Your task to perform on an android device: Open battery settings Image 0: 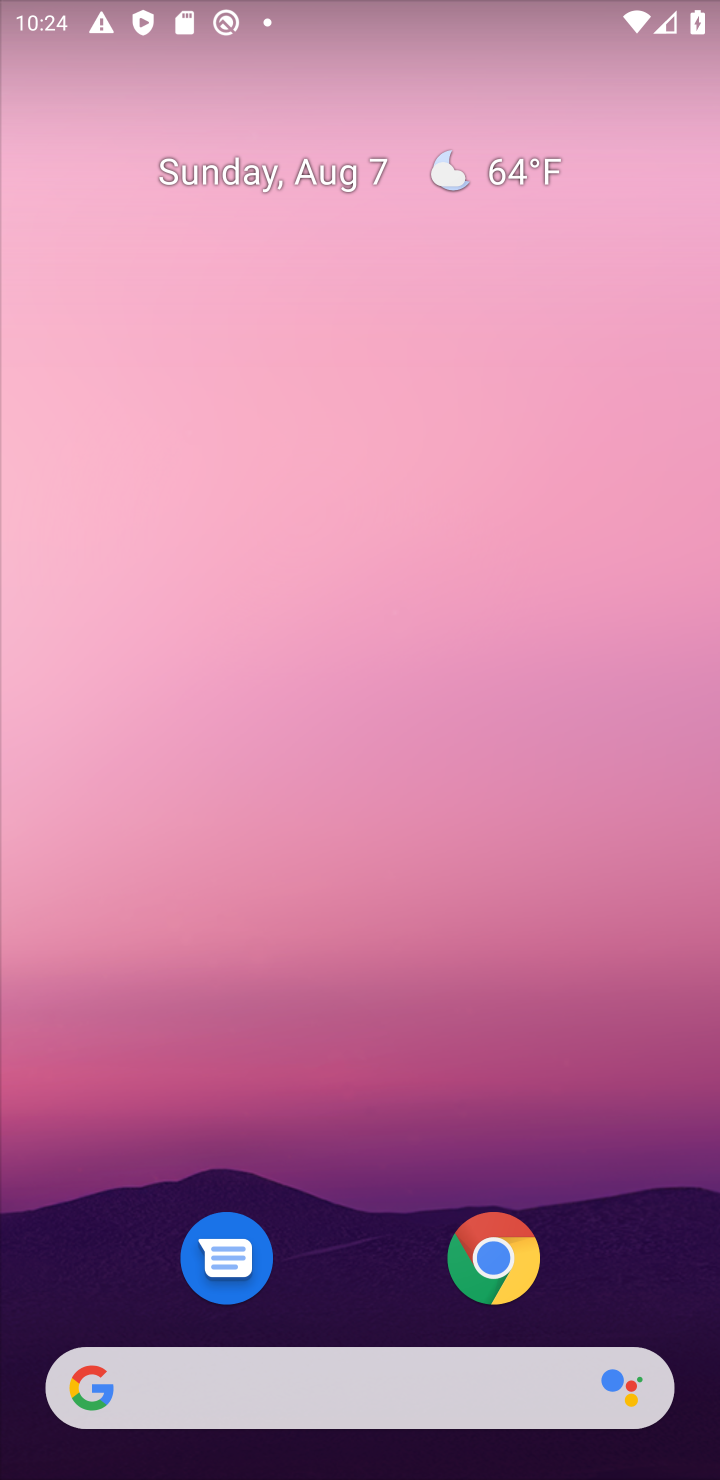
Step 0: press home button
Your task to perform on an android device: Open battery settings Image 1: 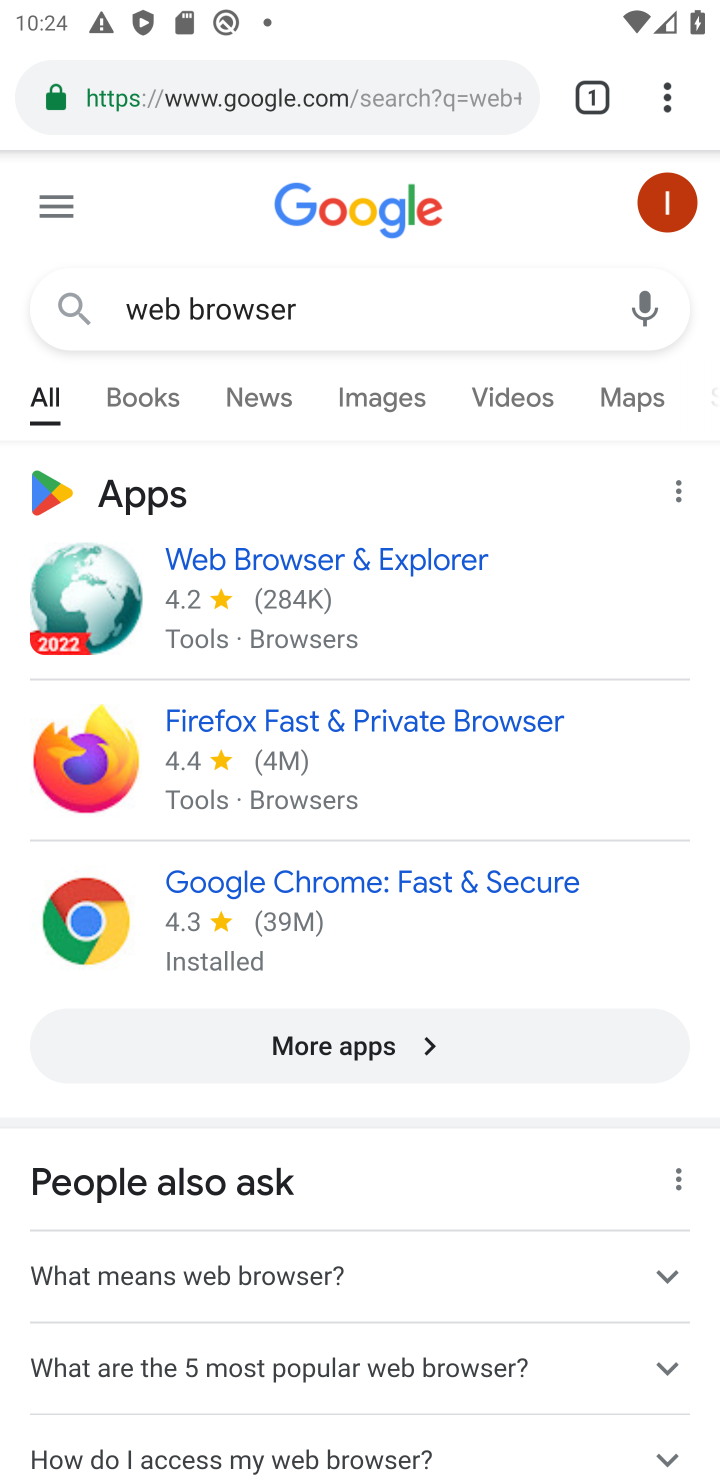
Step 1: press home button
Your task to perform on an android device: Open battery settings Image 2: 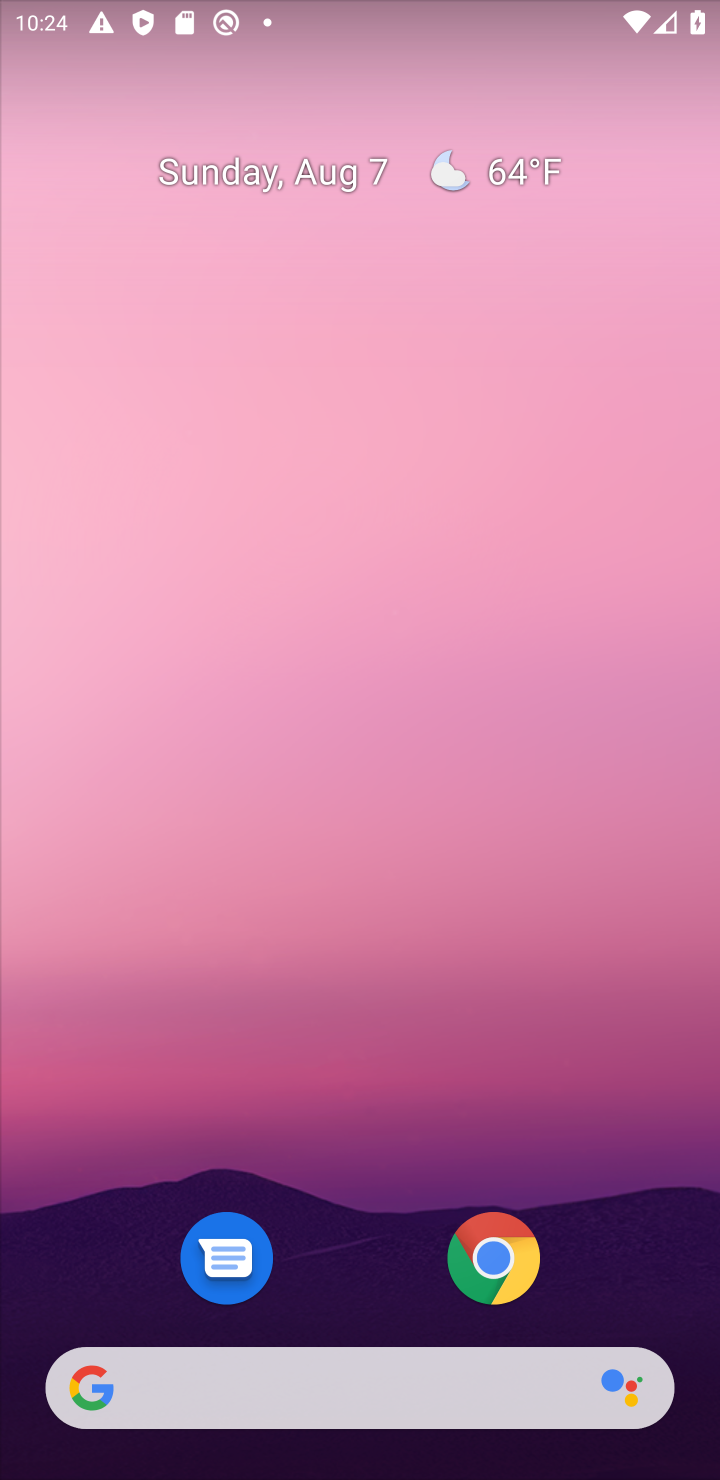
Step 2: press home button
Your task to perform on an android device: Open battery settings Image 3: 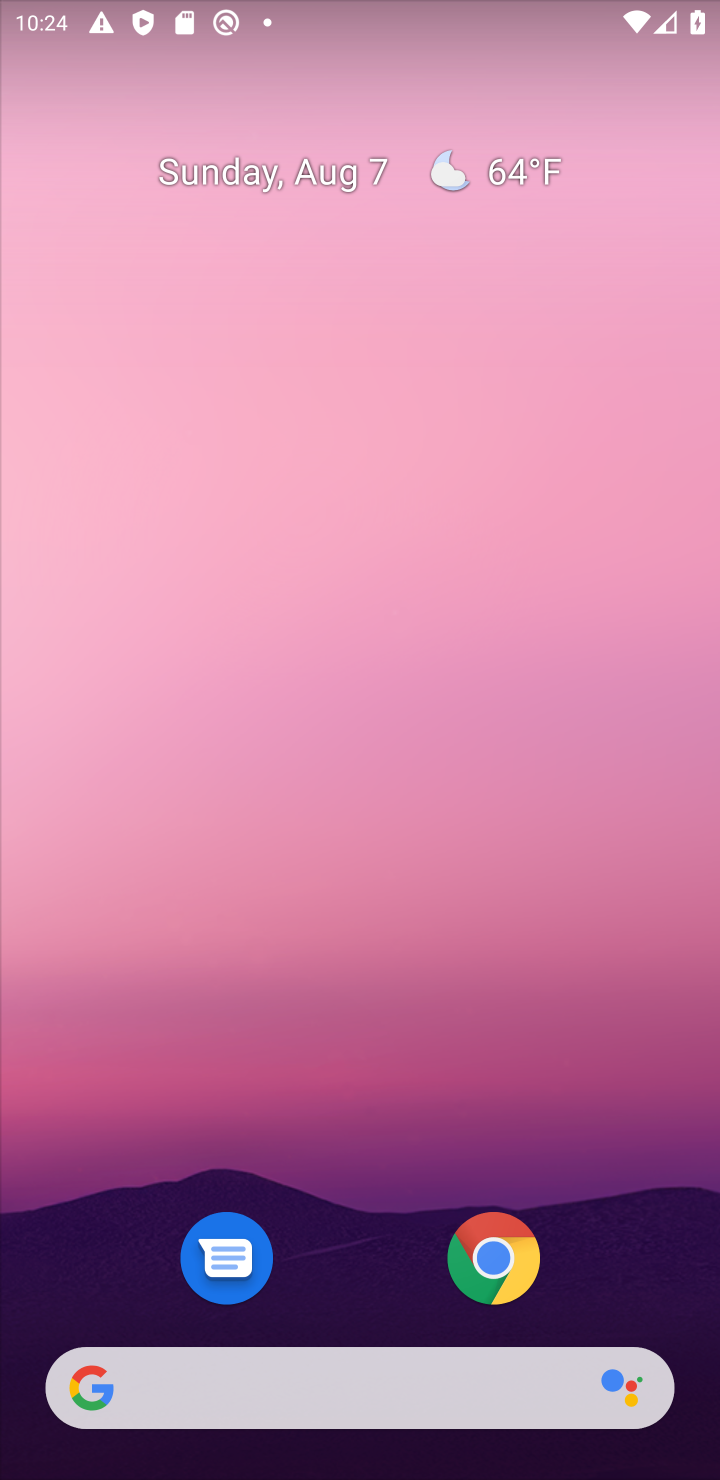
Step 3: drag from (408, 1178) to (386, 398)
Your task to perform on an android device: Open battery settings Image 4: 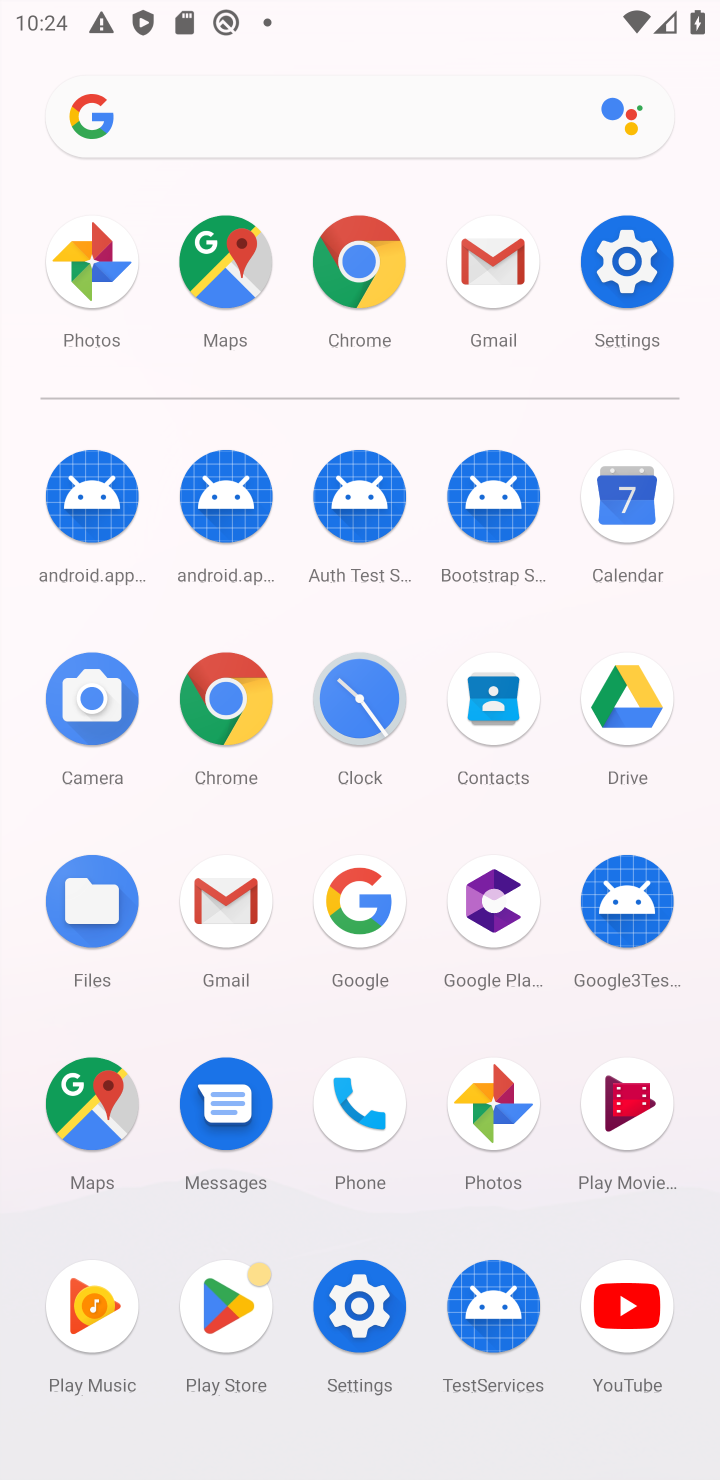
Step 4: click (610, 275)
Your task to perform on an android device: Open battery settings Image 5: 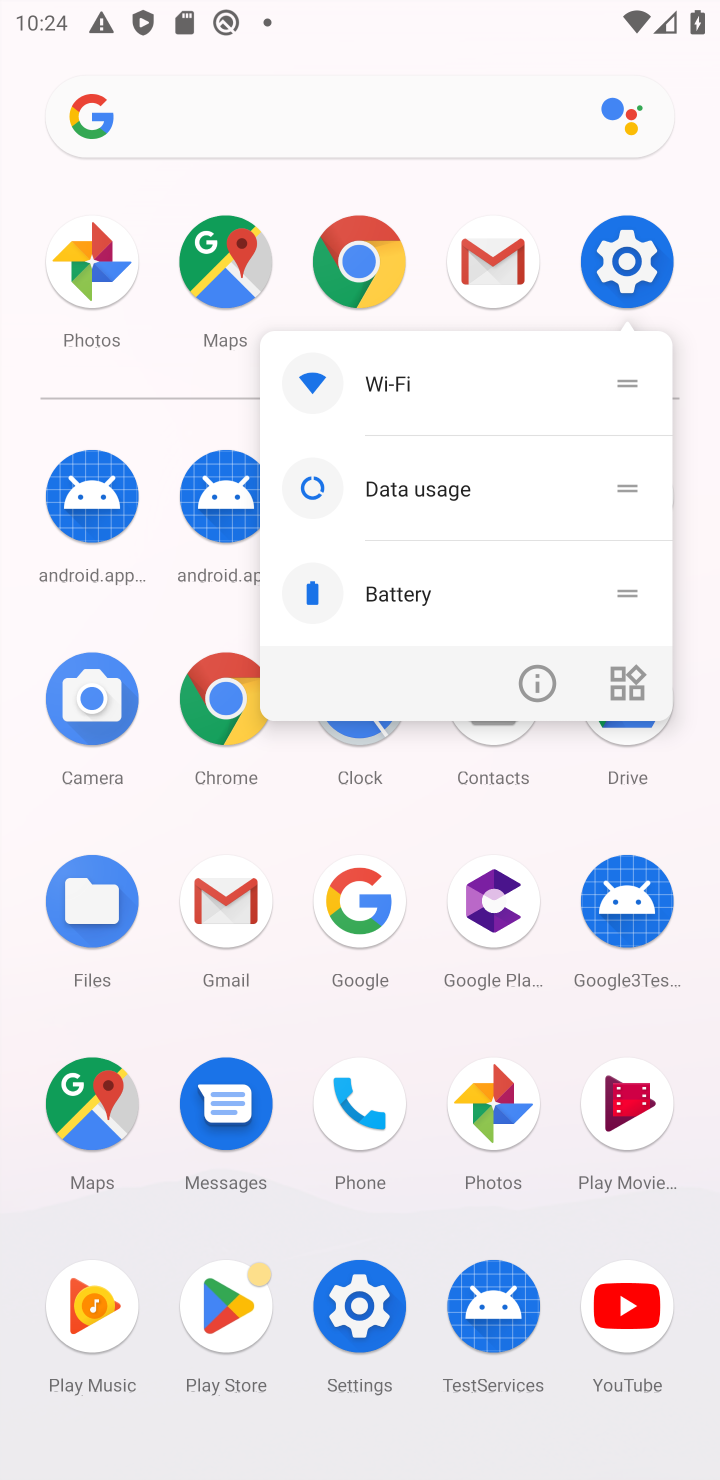
Step 5: click (610, 275)
Your task to perform on an android device: Open battery settings Image 6: 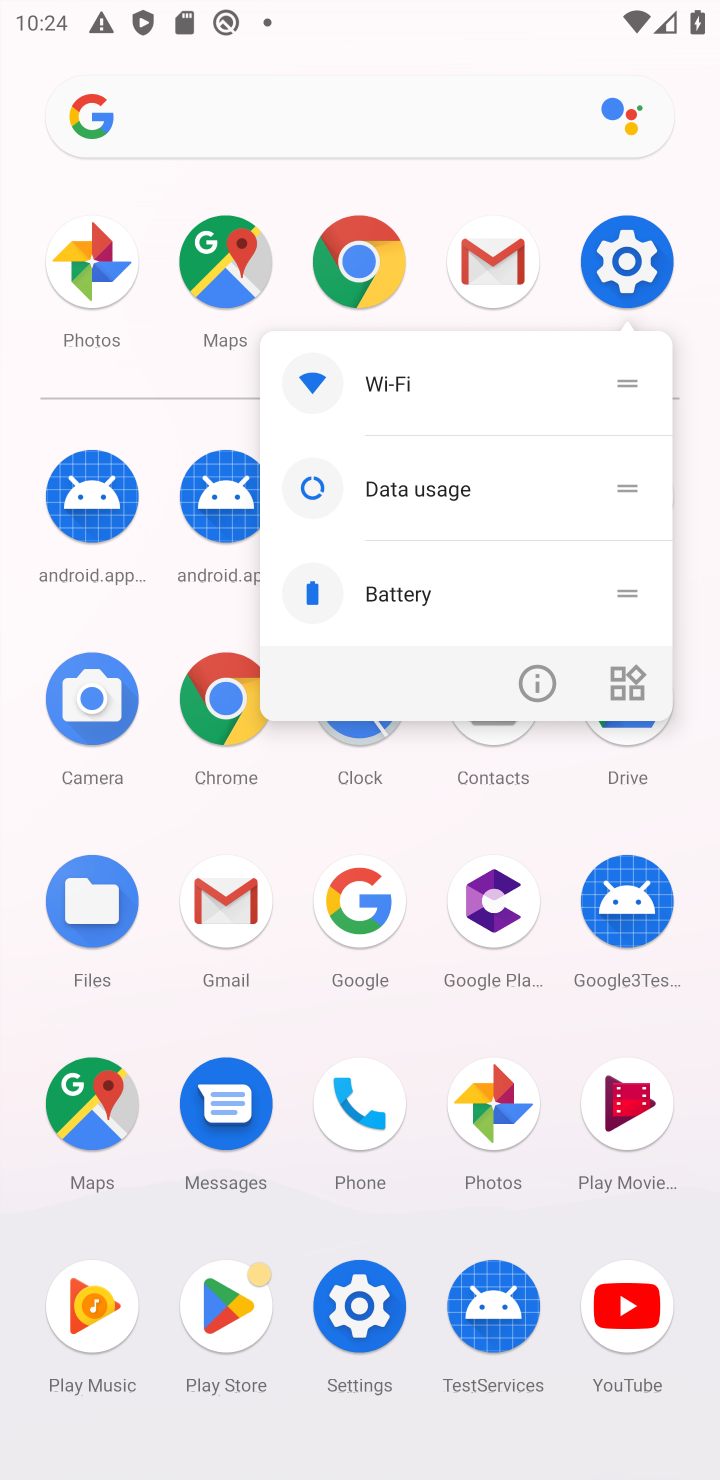
Step 6: click (635, 241)
Your task to perform on an android device: Open battery settings Image 7: 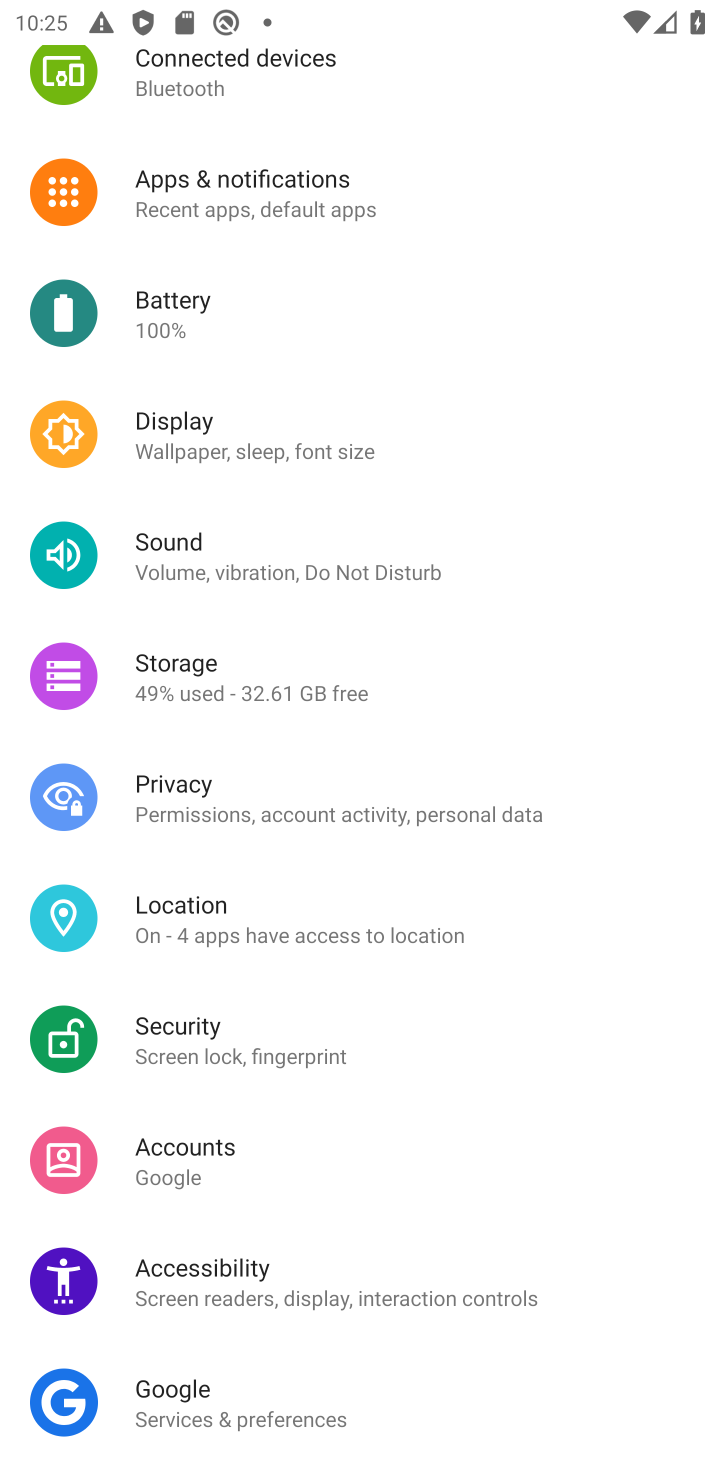
Step 7: click (102, 299)
Your task to perform on an android device: Open battery settings Image 8: 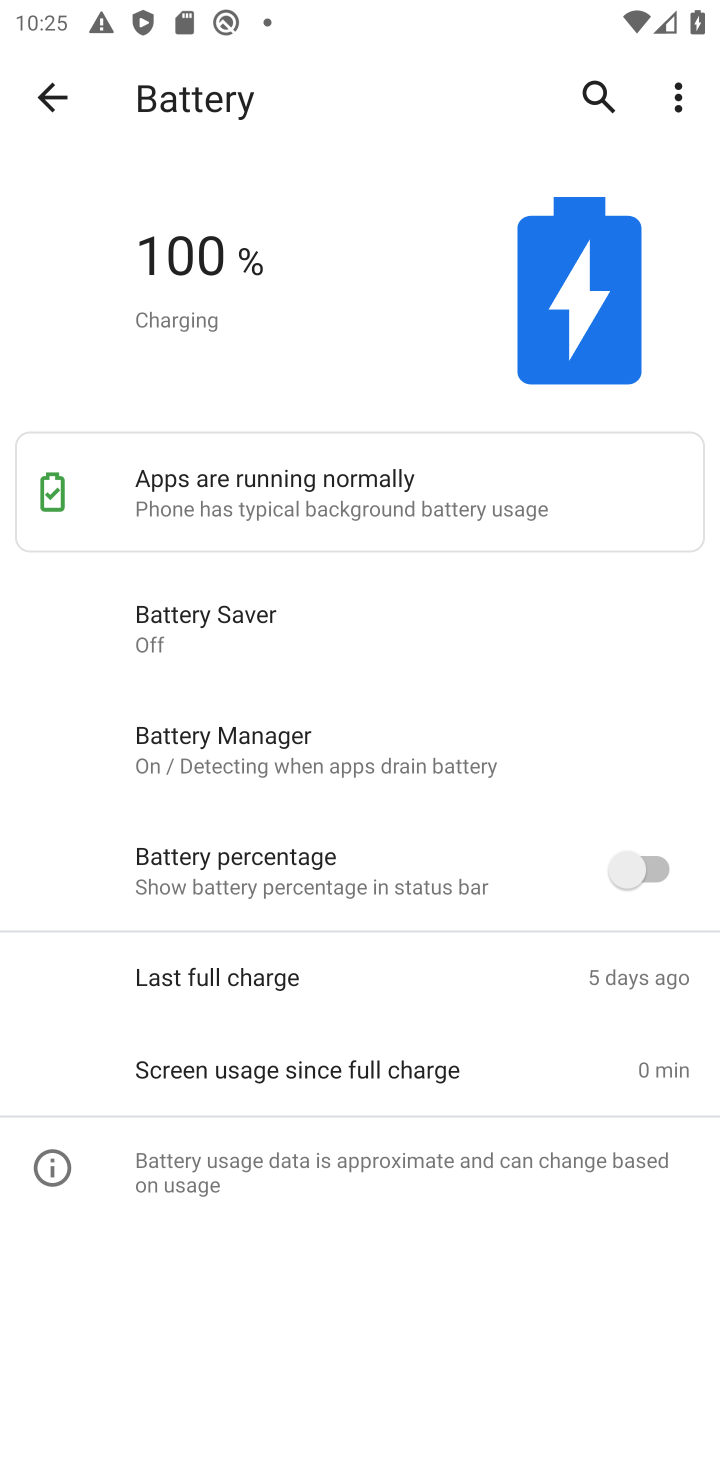
Step 8: task complete